Your task to perform on an android device: Open display settings Image 0: 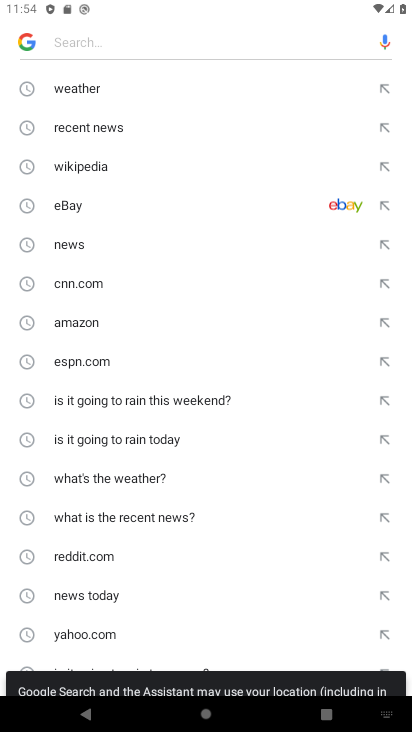
Step 0: press home button
Your task to perform on an android device: Open display settings Image 1: 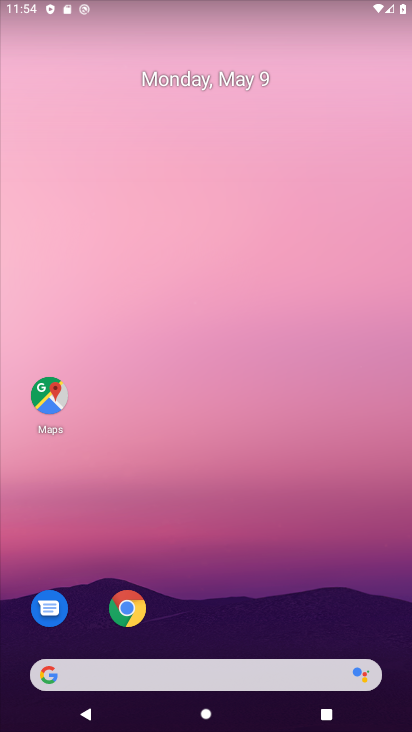
Step 1: drag from (200, 553) to (113, 38)
Your task to perform on an android device: Open display settings Image 2: 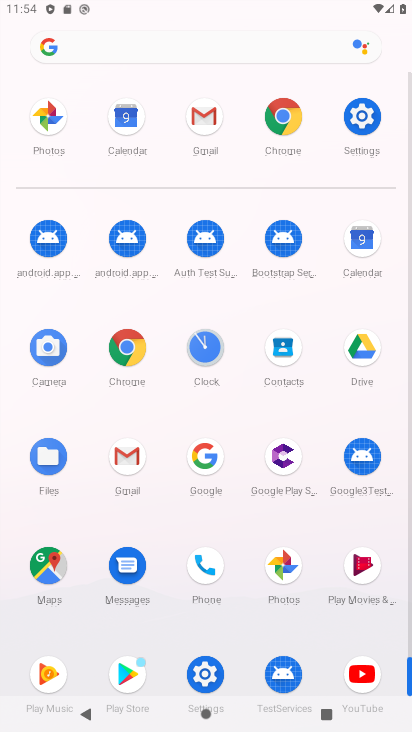
Step 2: click (201, 671)
Your task to perform on an android device: Open display settings Image 3: 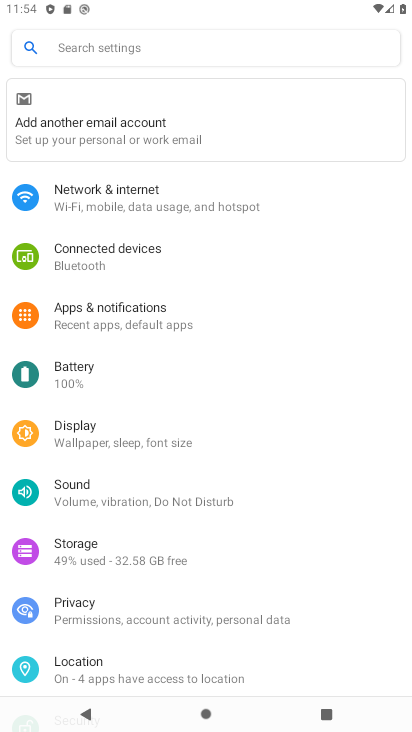
Step 3: click (116, 423)
Your task to perform on an android device: Open display settings Image 4: 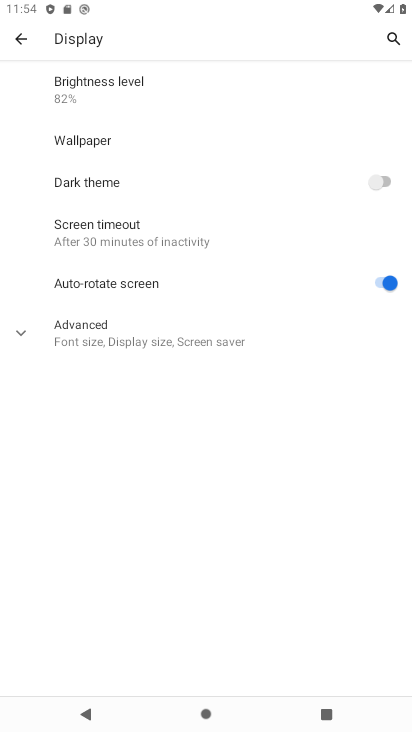
Step 4: click (31, 326)
Your task to perform on an android device: Open display settings Image 5: 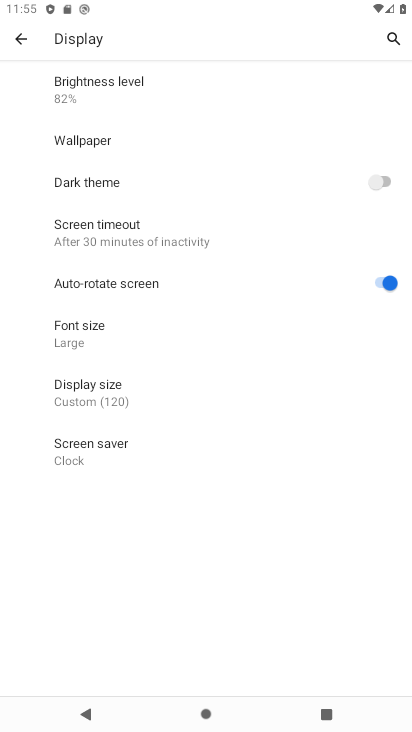
Step 5: task complete